Your task to perform on an android device: turn on translation in the chrome app Image 0: 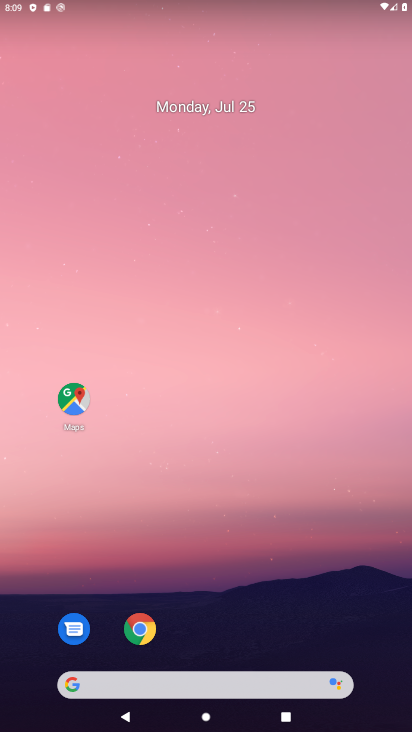
Step 0: drag from (211, 654) to (228, 23)
Your task to perform on an android device: turn on translation in the chrome app Image 1: 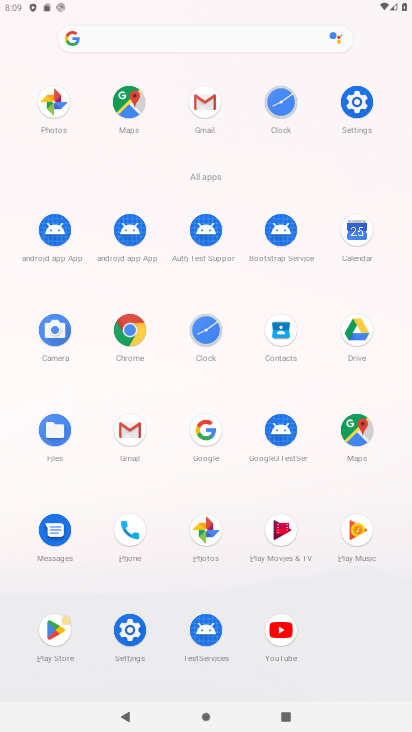
Step 1: click (133, 335)
Your task to perform on an android device: turn on translation in the chrome app Image 2: 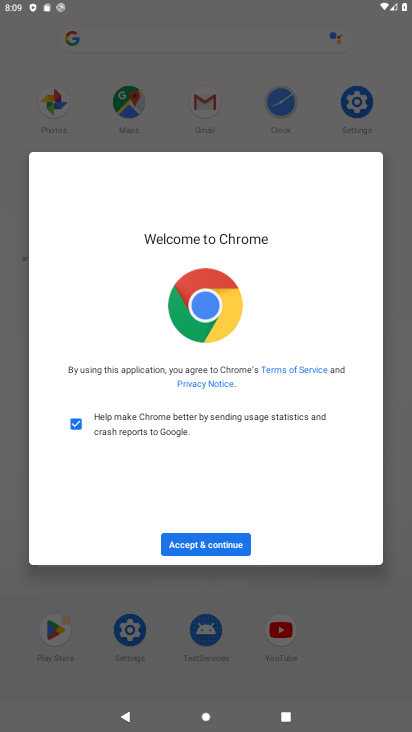
Step 2: click (210, 548)
Your task to perform on an android device: turn on translation in the chrome app Image 3: 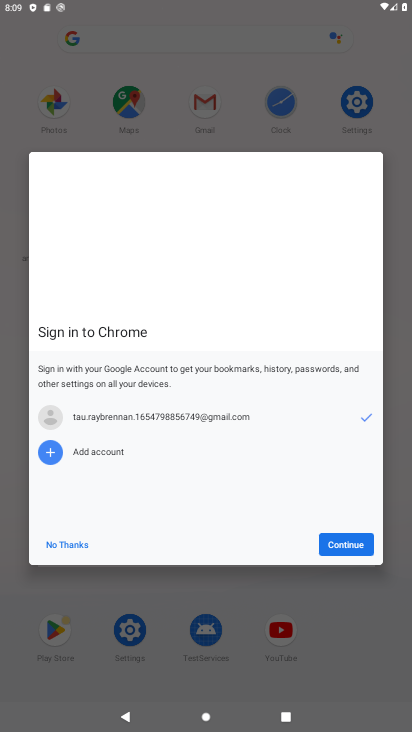
Step 3: click (349, 549)
Your task to perform on an android device: turn on translation in the chrome app Image 4: 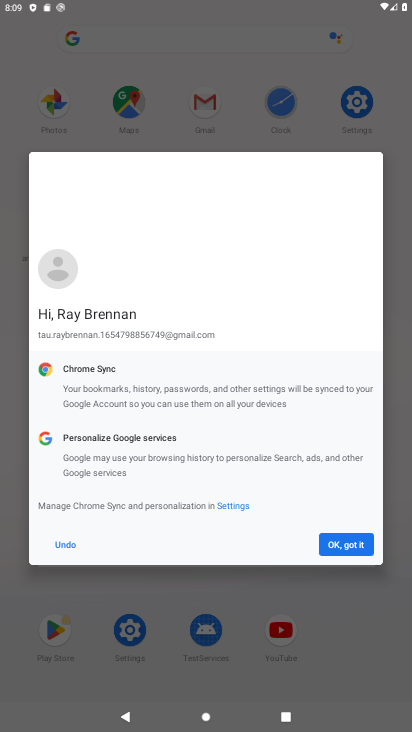
Step 4: click (332, 547)
Your task to perform on an android device: turn on translation in the chrome app Image 5: 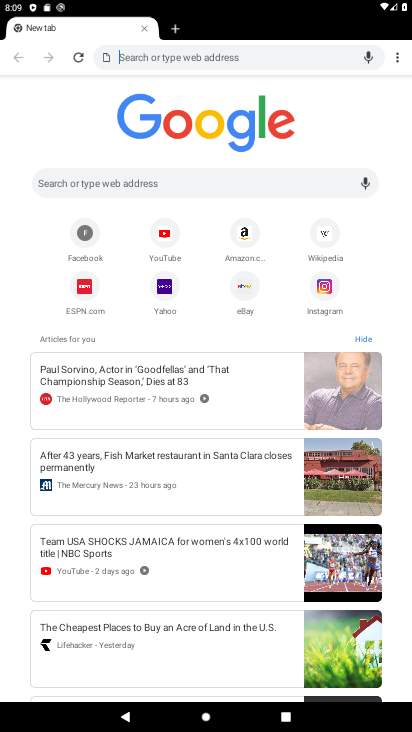
Step 5: click (397, 55)
Your task to perform on an android device: turn on translation in the chrome app Image 6: 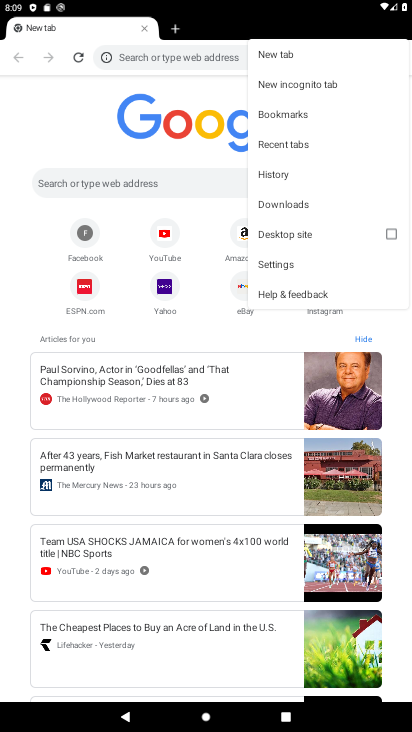
Step 6: click (276, 268)
Your task to perform on an android device: turn on translation in the chrome app Image 7: 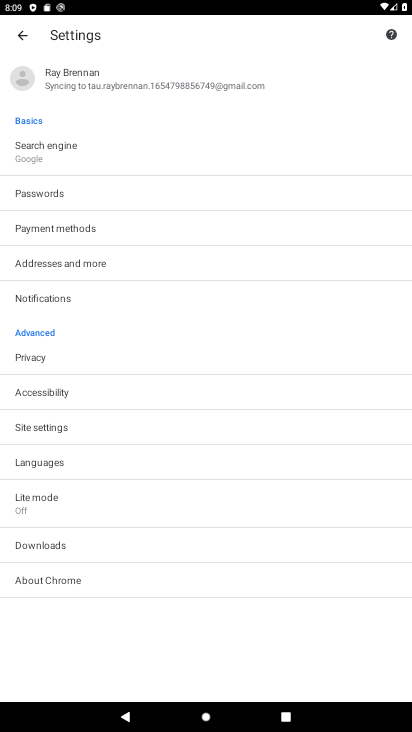
Step 7: click (63, 465)
Your task to perform on an android device: turn on translation in the chrome app Image 8: 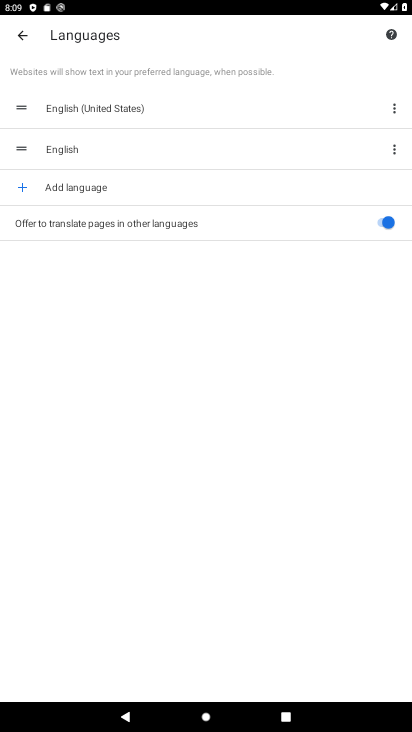
Step 8: task complete